Your task to perform on an android device: What is the recent news? Image 0: 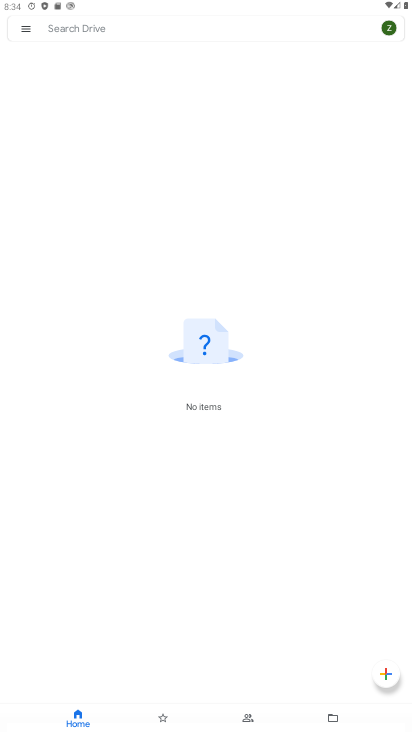
Step 0: press home button
Your task to perform on an android device: What is the recent news? Image 1: 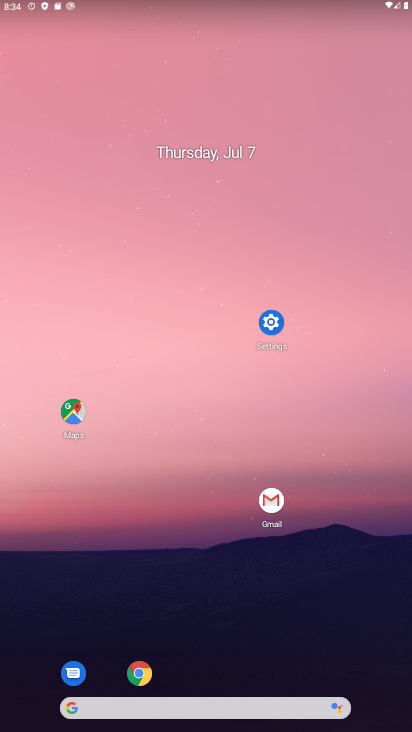
Step 1: task complete